Your task to perform on an android device: turn on bluetooth scan Image 0: 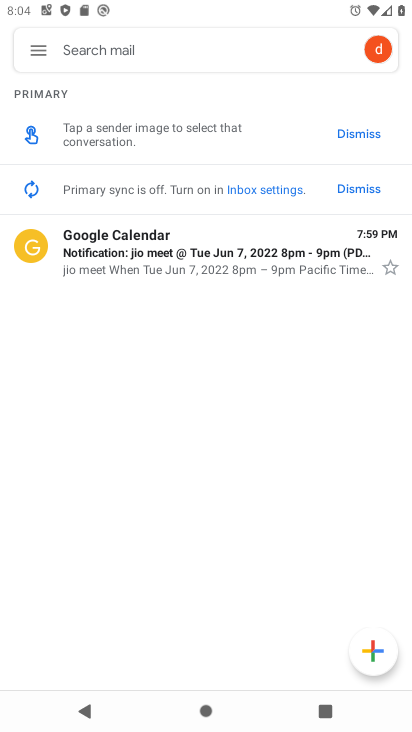
Step 0: press home button
Your task to perform on an android device: turn on bluetooth scan Image 1: 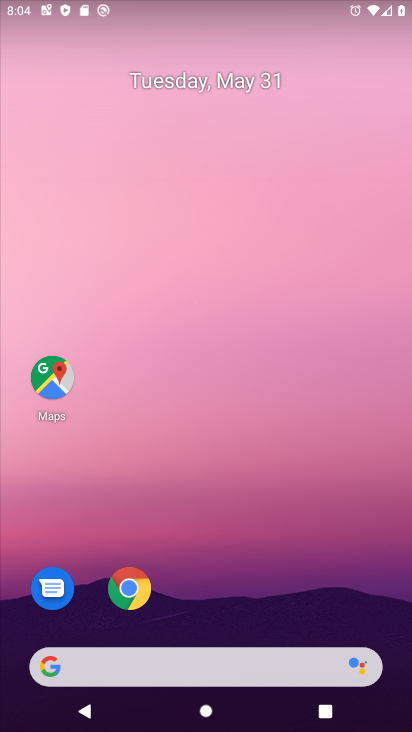
Step 1: drag from (219, 608) to (246, 2)
Your task to perform on an android device: turn on bluetooth scan Image 2: 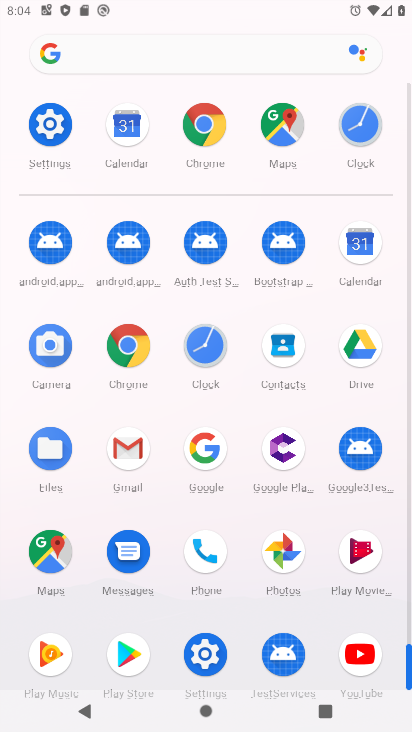
Step 2: click (212, 665)
Your task to perform on an android device: turn on bluetooth scan Image 3: 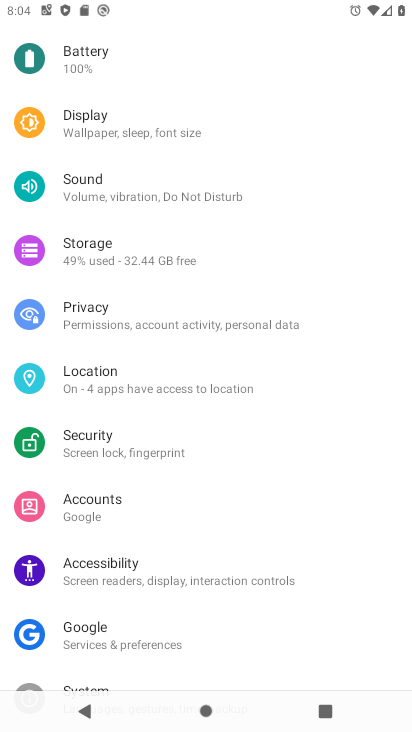
Step 3: click (143, 394)
Your task to perform on an android device: turn on bluetooth scan Image 4: 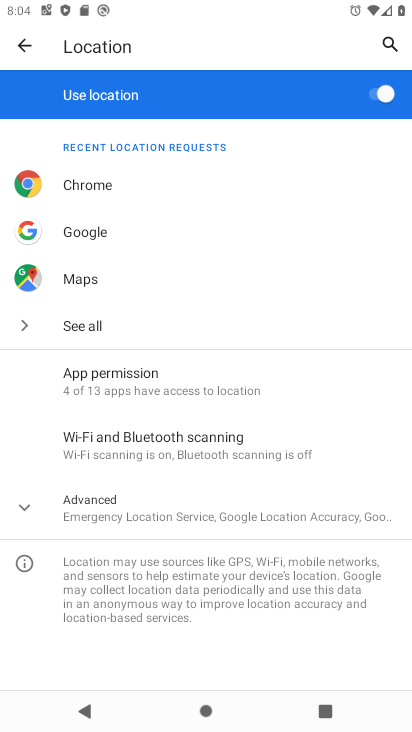
Step 4: click (140, 447)
Your task to perform on an android device: turn on bluetooth scan Image 5: 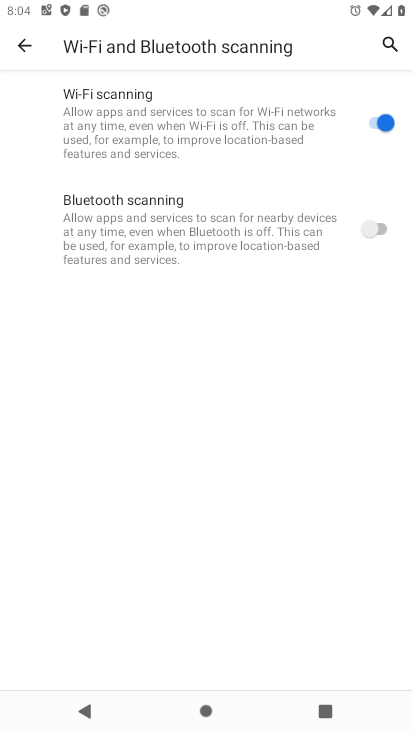
Step 5: click (375, 240)
Your task to perform on an android device: turn on bluetooth scan Image 6: 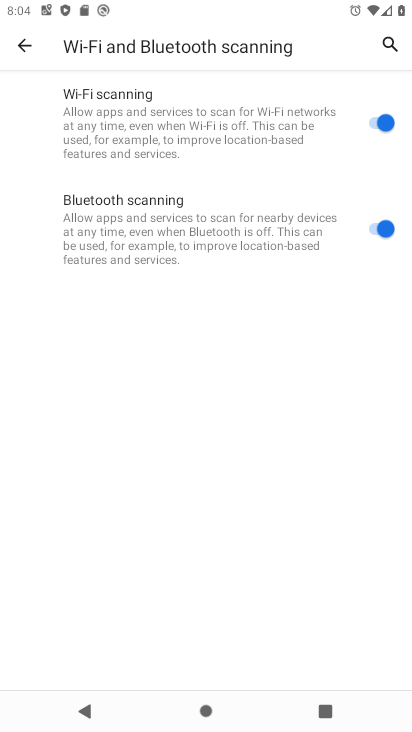
Step 6: task complete